Your task to perform on an android device: Look up the best rated 5.1 home theater speakers on Walmart. Image 0: 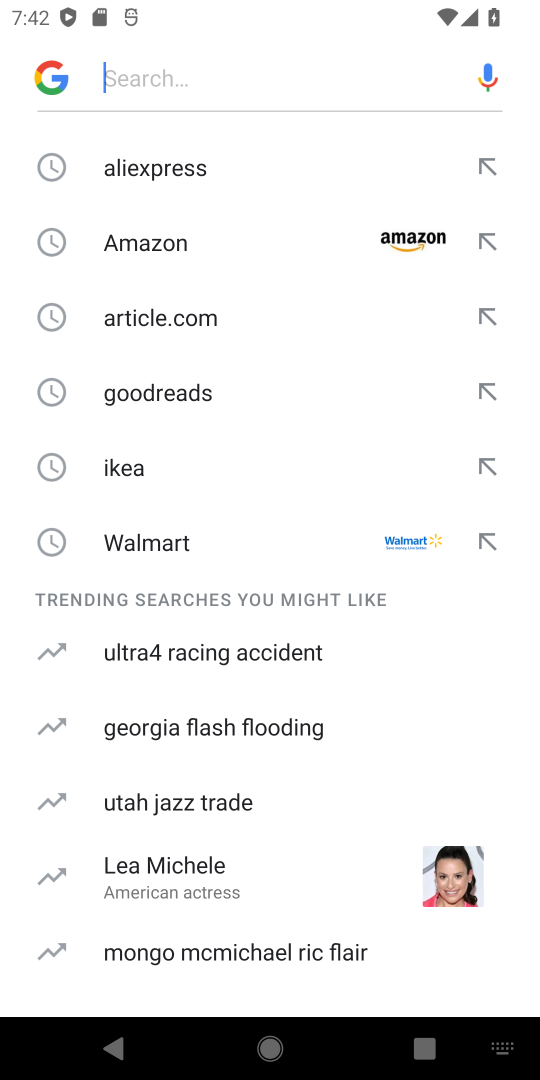
Step 0: press home button
Your task to perform on an android device: Look up the best rated 5.1 home theater speakers on Walmart. Image 1: 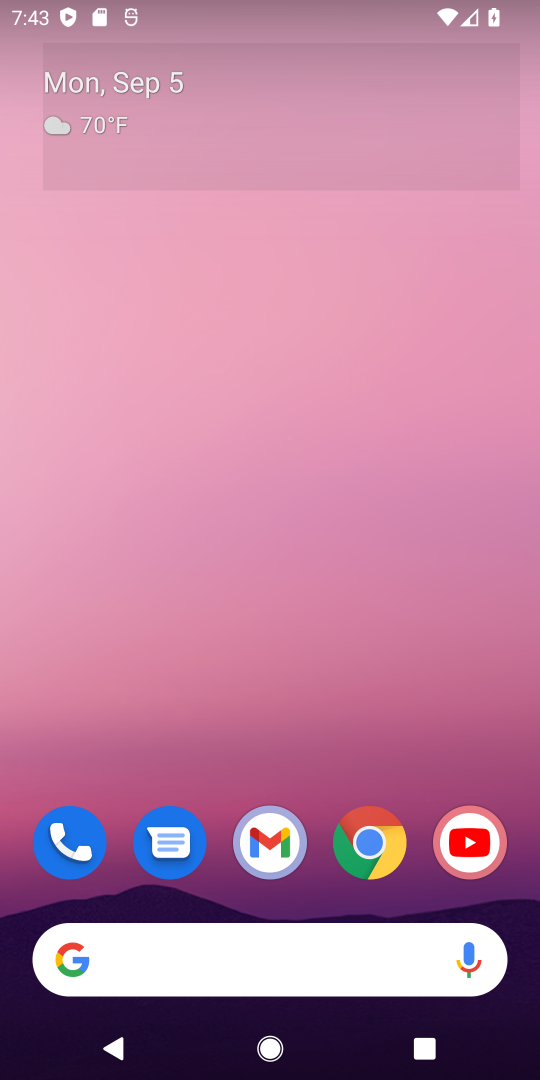
Step 1: click (370, 841)
Your task to perform on an android device: Look up the best rated 5.1 home theater speakers on Walmart. Image 2: 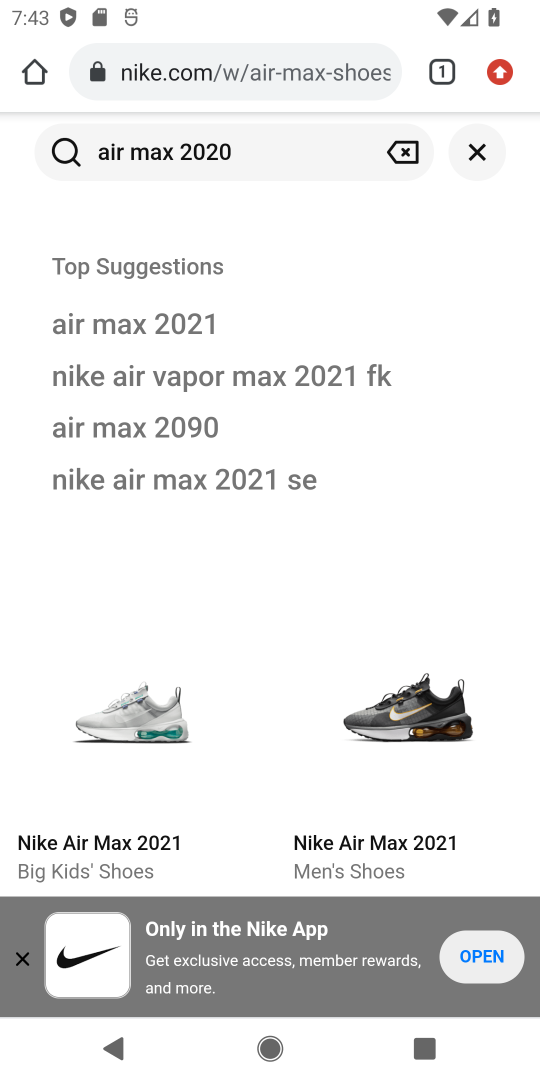
Step 2: click (341, 72)
Your task to perform on an android device: Look up the best rated 5.1 home theater speakers on Walmart. Image 3: 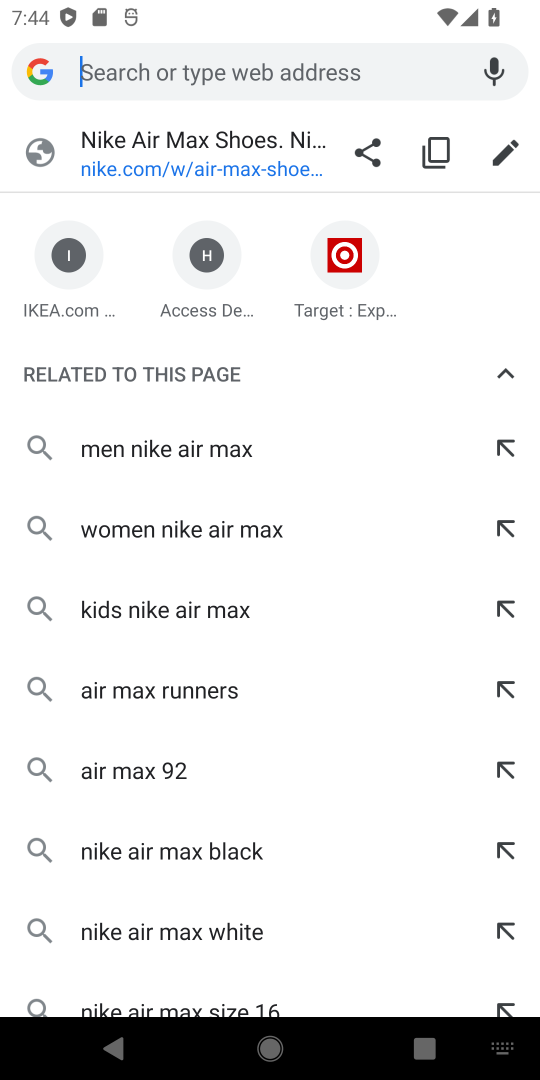
Step 3: type "Walmart"
Your task to perform on an android device: Look up the best rated 5.1 home theater speakers on Walmart. Image 4: 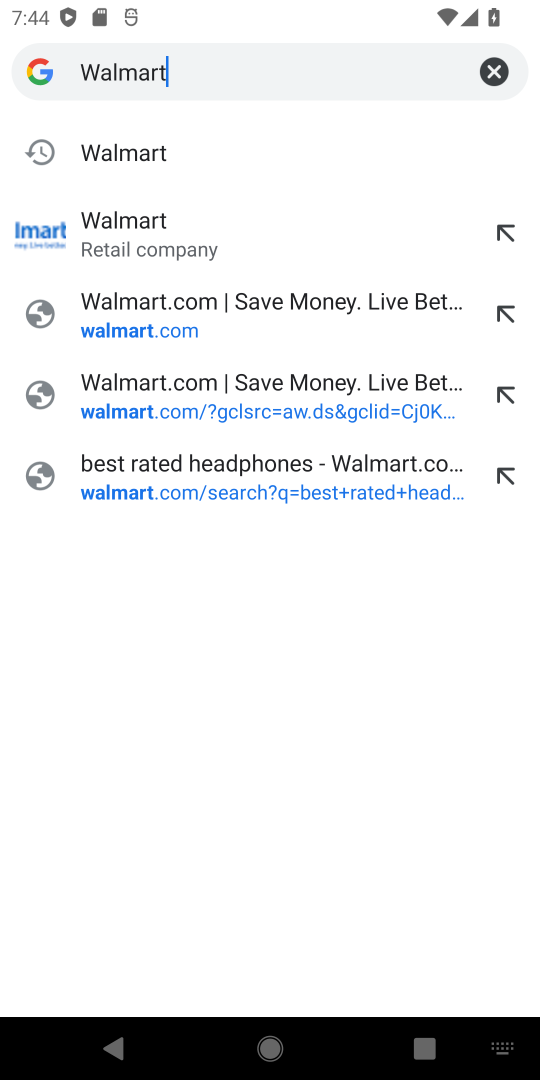
Step 4: click (156, 239)
Your task to perform on an android device: Look up the best rated 5.1 home theater speakers on Walmart. Image 5: 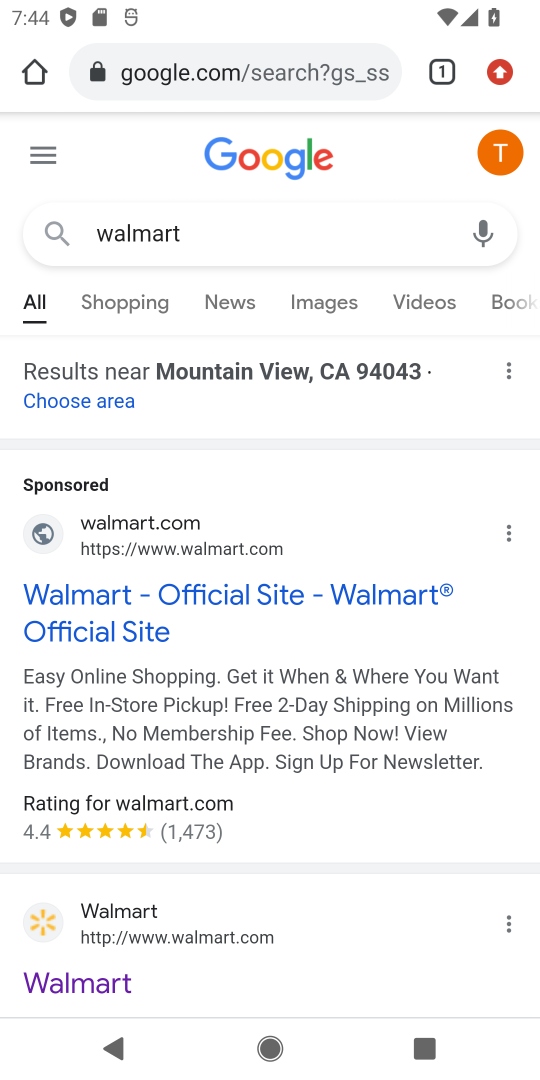
Step 5: click (139, 991)
Your task to perform on an android device: Look up the best rated 5.1 home theater speakers on Walmart. Image 6: 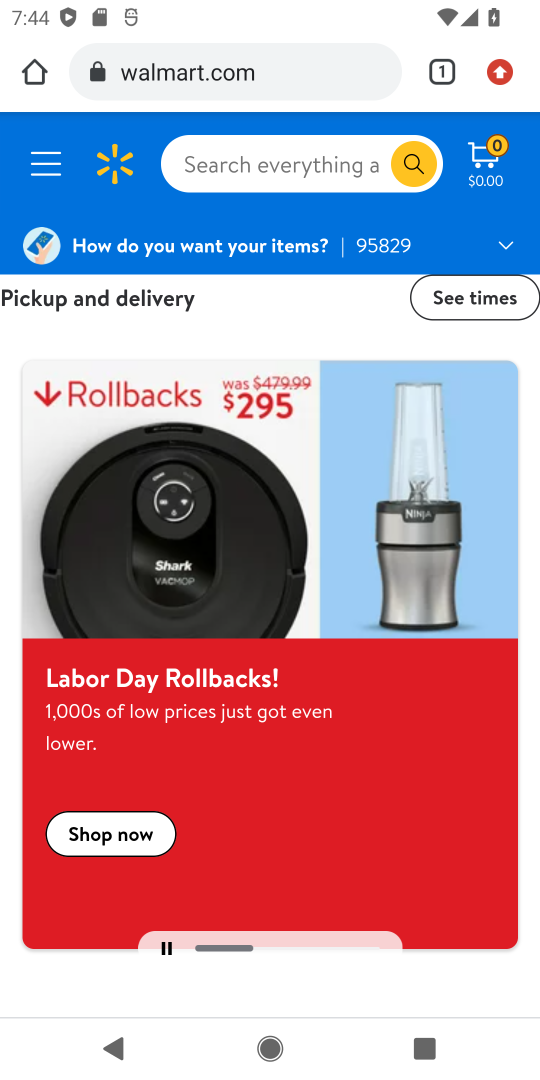
Step 6: click (293, 168)
Your task to perform on an android device: Look up the best rated 5.1 home theater speakers on Walmart. Image 7: 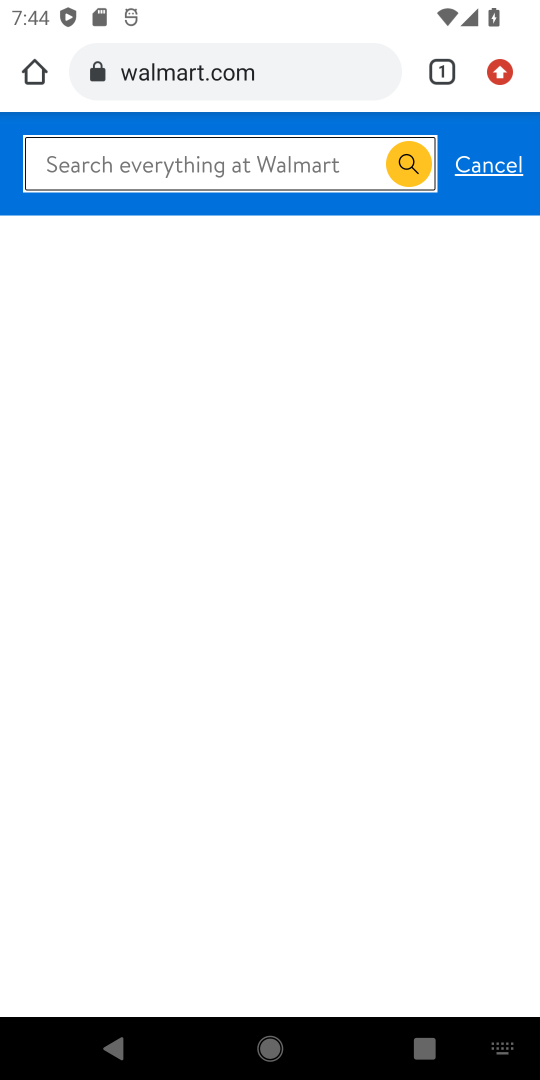
Step 7: type "best rated 5.1 home theater speakers"
Your task to perform on an android device: Look up the best rated 5.1 home theater speakers on Walmart. Image 8: 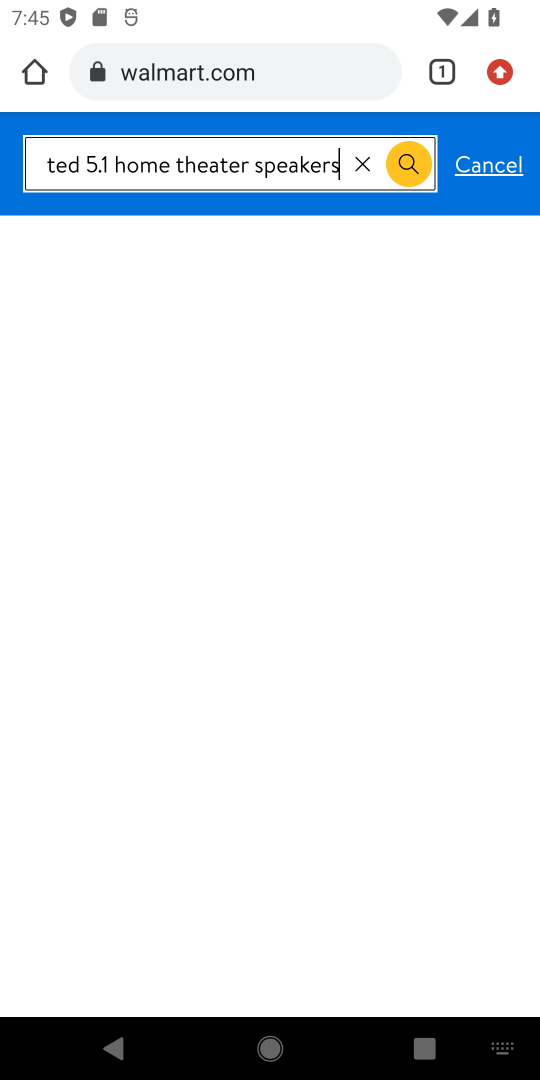
Step 8: click (412, 170)
Your task to perform on an android device: Look up the best rated 5.1 home theater speakers on Walmart. Image 9: 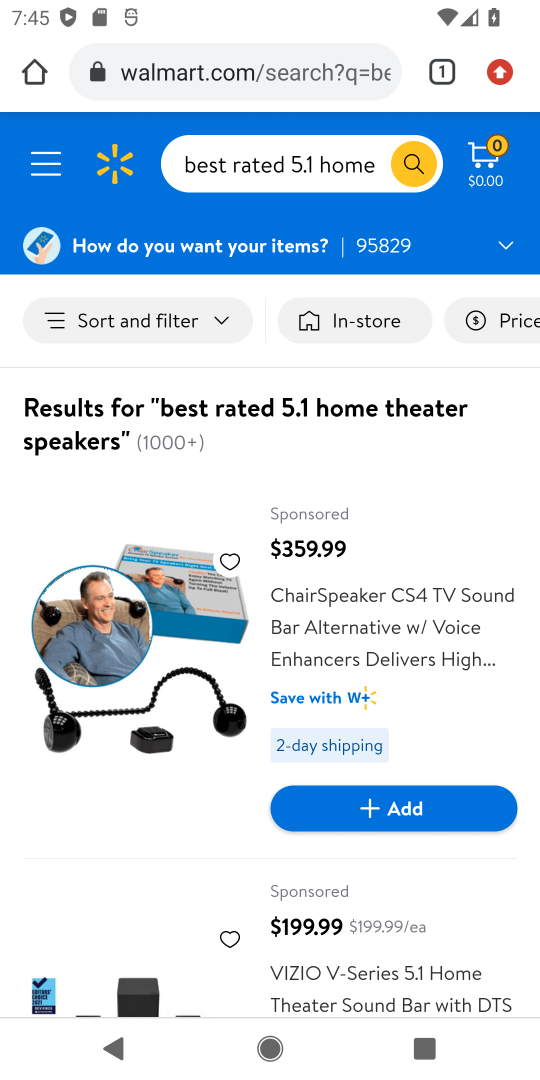
Step 9: drag from (408, 638) to (424, 519)
Your task to perform on an android device: Look up the best rated 5.1 home theater speakers on Walmart. Image 10: 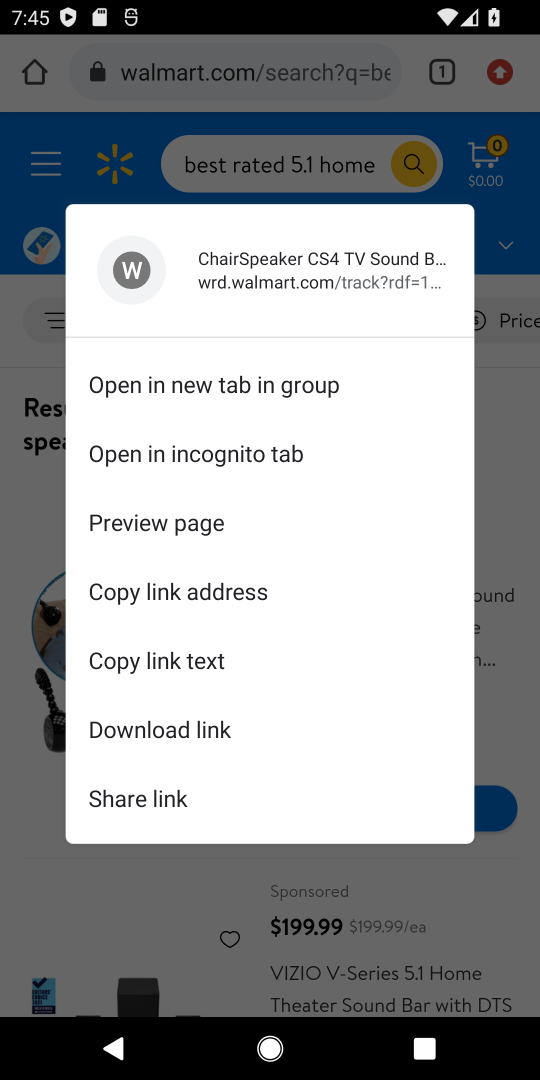
Step 10: click (524, 464)
Your task to perform on an android device: Look up the best rated 5.1 home theater speakers on Walmart. Image 11: 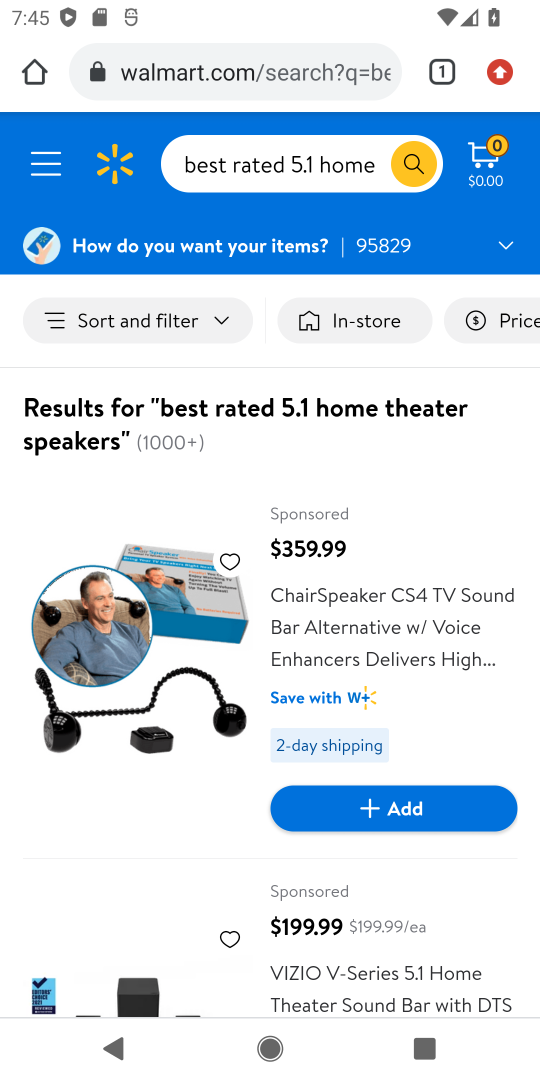
Step 11: task complete